Your task to perform on an android device: Open Youtube and go to "Your channel" Image 0: 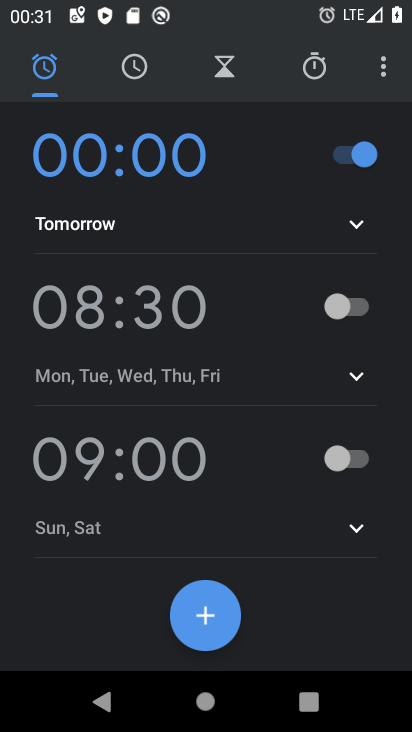
Step 0: press home button
Your task to perform on an android device: Open Youtube and go to "Your channel" Image 1: 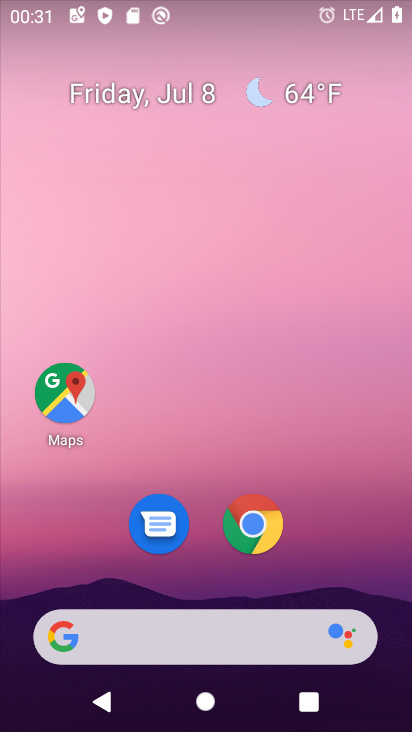
Step 1: drag from (215, 458) to (180, 17)
Your task to perform on an android device: Open Youtube and go to "Your channel" Image 2: 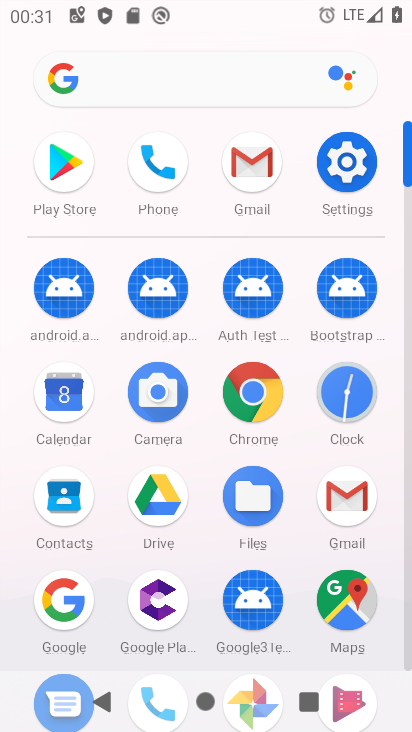
Step 2: drag from (189, 504) to (210, 43)
Your task to perform on an android device: Open Youtube and go to "Your channel" Image 3: 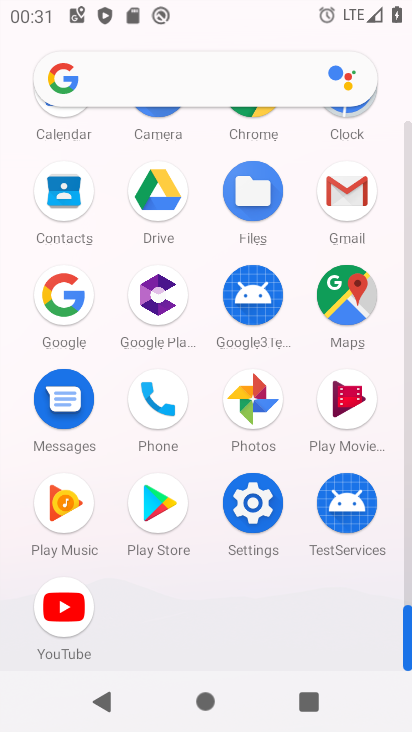
Step 3: click (76, 604)
Your task to perform on an android device: Open Youtube and go to "Your channel" Image 4: 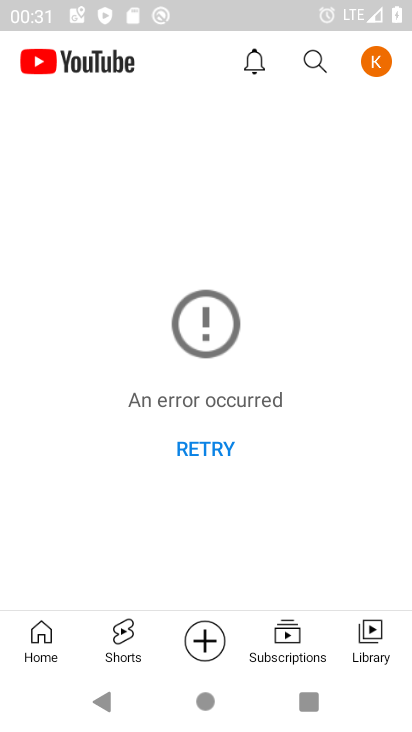
Step 4: click (374, 66)
Your task to perform on an android device: Open Youtube and go to "Your channel" Image 5: 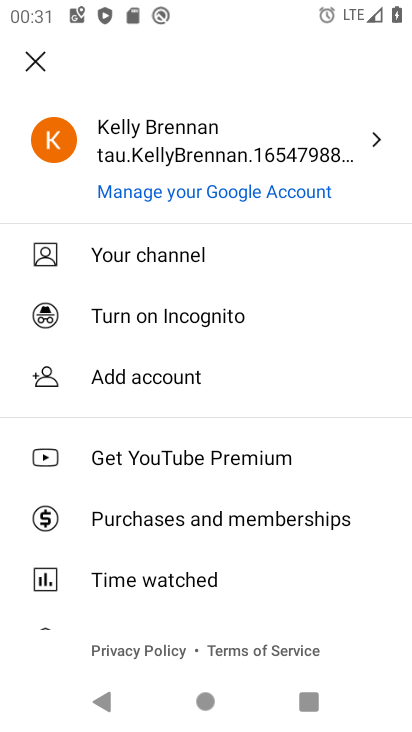
Step 5: click (197, 247)
Your task to perform on an android device: Open Youtube and go to "Your channel" Image 6: 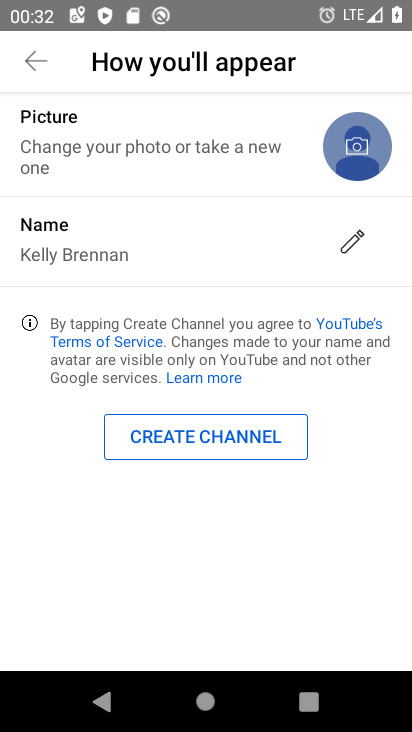
Step 6: task complete